Your task to perform on an android device: see sites visited before in the chrome app Image 0: 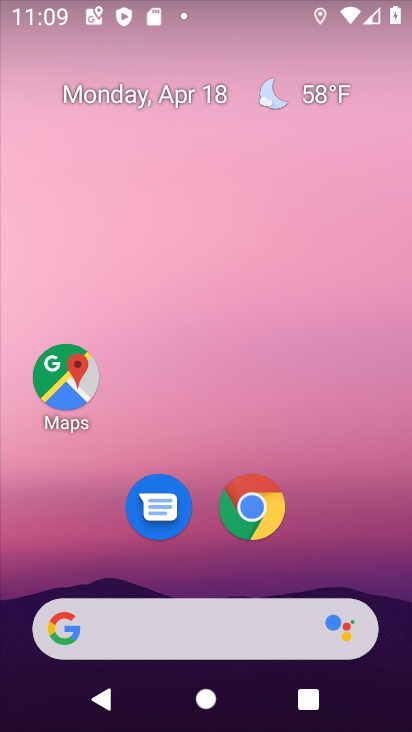
Step 0: click (253, 525)
Your task to perform on an android device: see sites visited before in the chrome app Image 1: 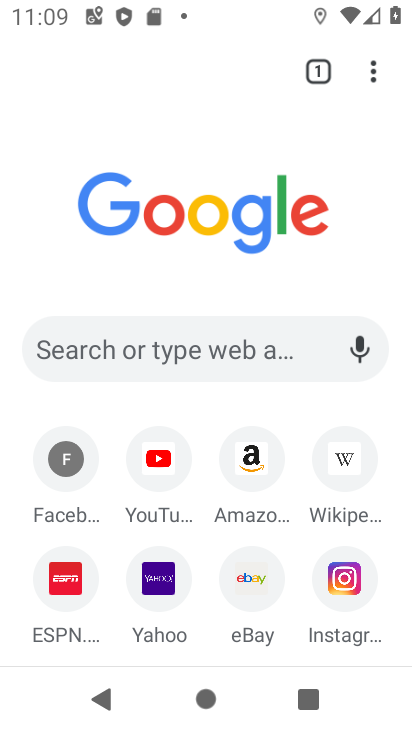
Step 1: click (374, 74)
Your task to perform on an android device: see sites visited before in the chrome app Image 2: 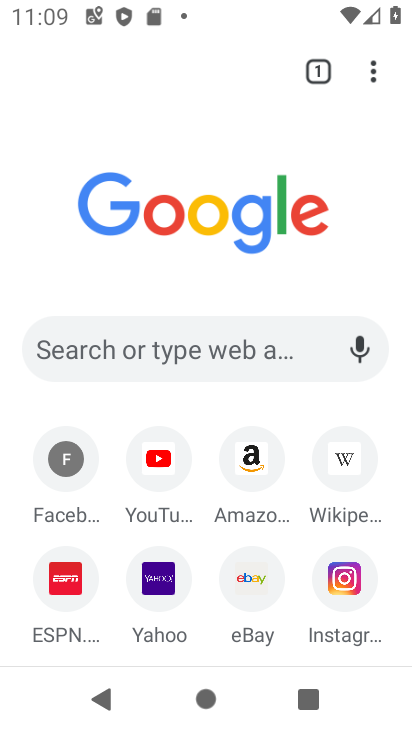
Step 2: click (374, 71)
Your task to perform on an android device: see sites visited before in the chrome app Image 3: 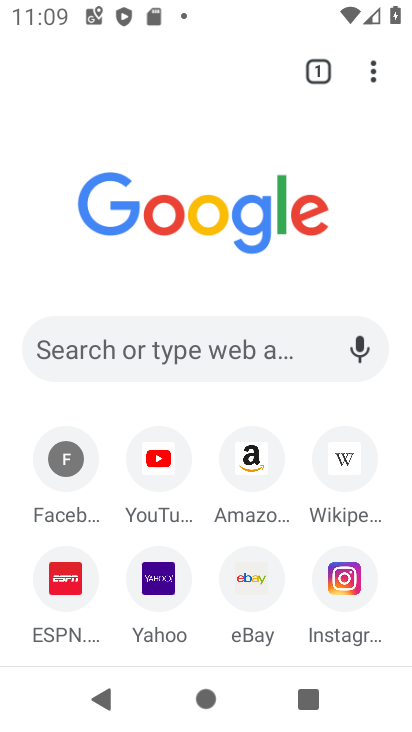
Step 3: click (374, 74)
Your task to perform on an android device: see sites visited before in the chrome app Image 4: 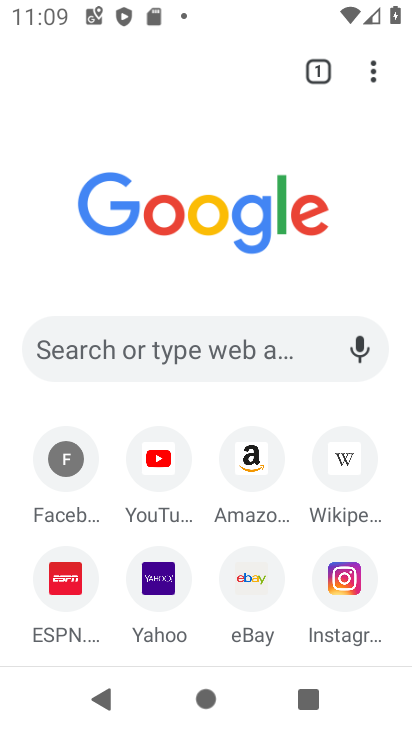
Step 4: click (372, 71)
Your task to perform on an android device: see sites visited before in the chrome app Image 5: 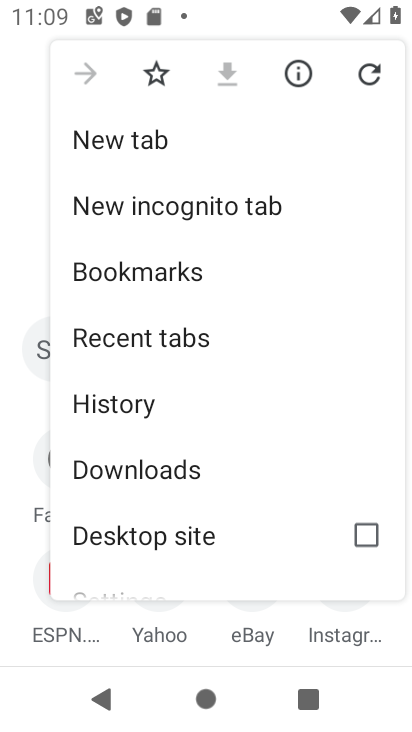
Step 5: click (121, 400)
Your task to perform on an android device: see sites visited before in the chrome app Image 6: 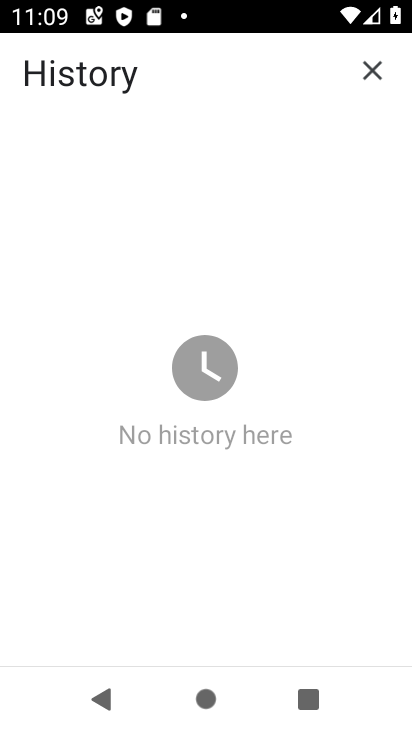
Step 6: task complete